Your task to perform on an android device: Go to eBay Image 0: 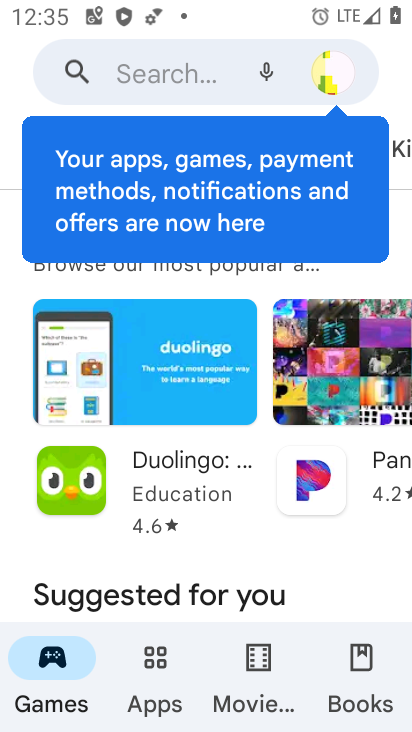
Step 0: press home button
Your task to perform on an android device: Go to eBay Image 1: 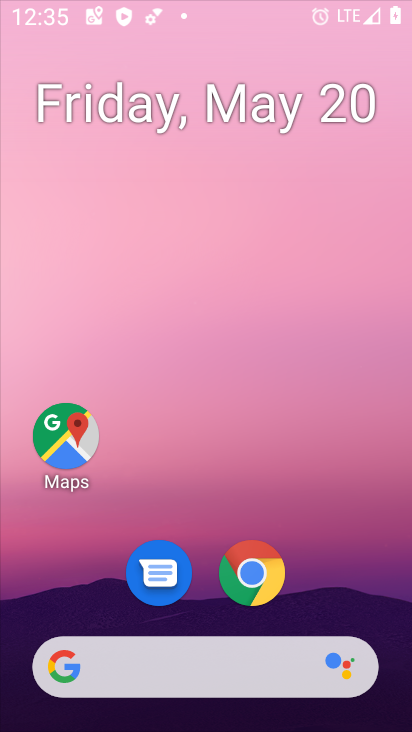
Step 1: drag from (313, 570) to (362, 116)
Your task to perform on an android device: Go to eBay Image 2: 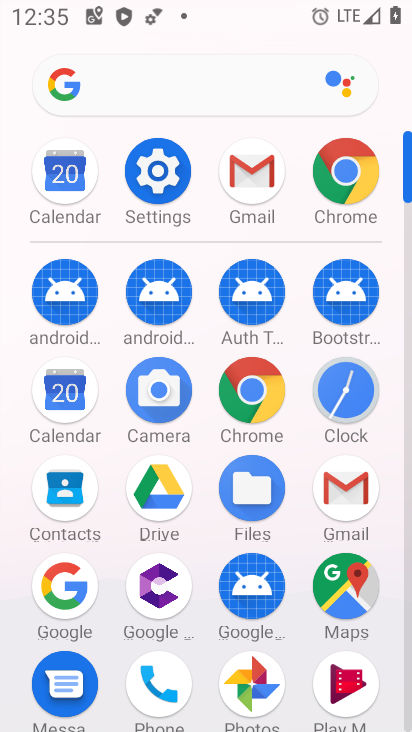
Step 2: click (62, 585)
Your task to perform on an android device: Go to eBay Image 3: 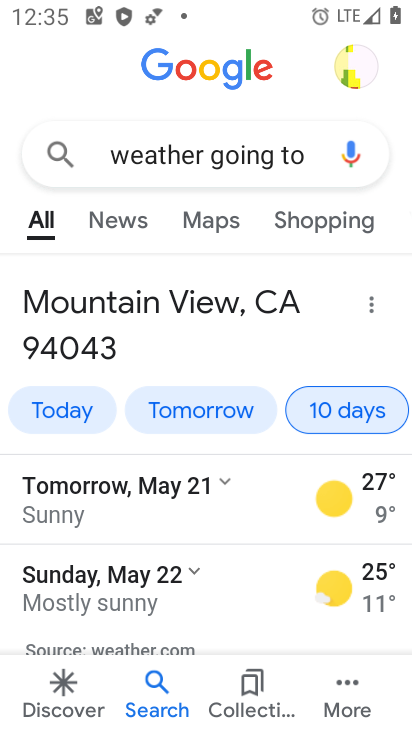
Step 3: press back button
Your task to perform on an android device: Go to eBay Image 4: 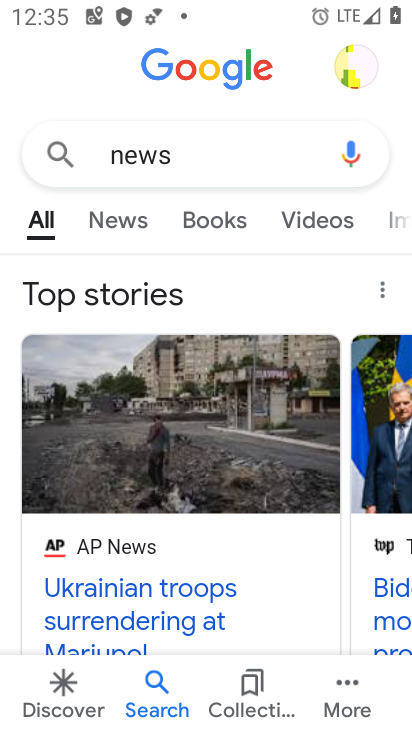
Step 4: press back button
Your task to perform on an android device: Go to eBay Image 5: 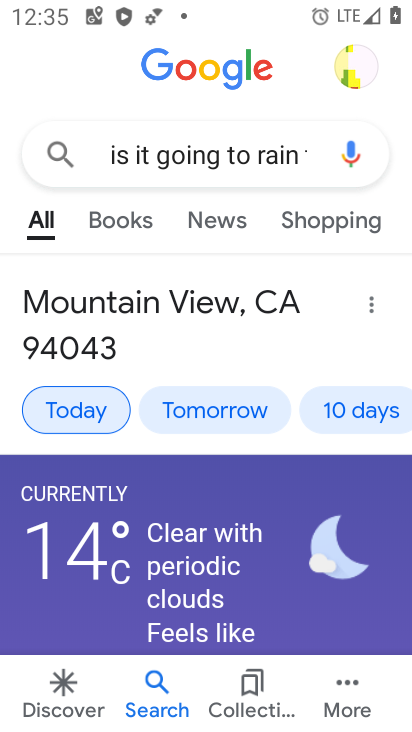
Step 5: press back button
Your task to perform on an android device: Go to eBay Image 6: 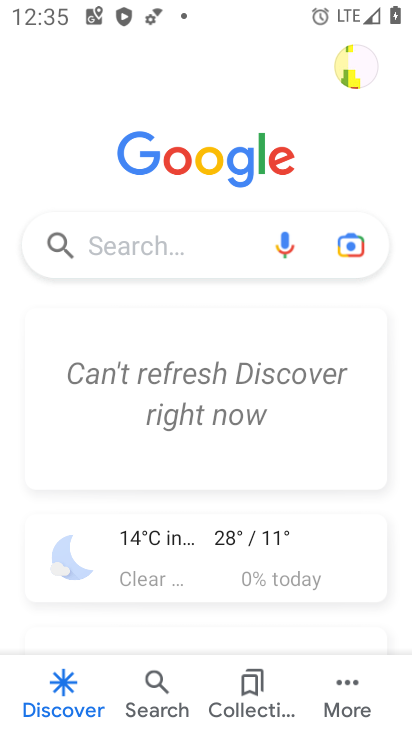
Step 6: click (156, 252)
Your task to perform on an android device: Go to eBay Image 7: 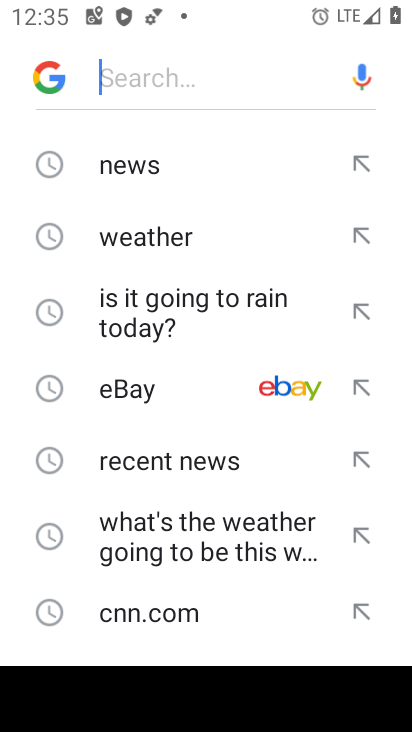
Step 7: click (159, 386)
Your task to perform on an android device: Go to eBay Image 8: 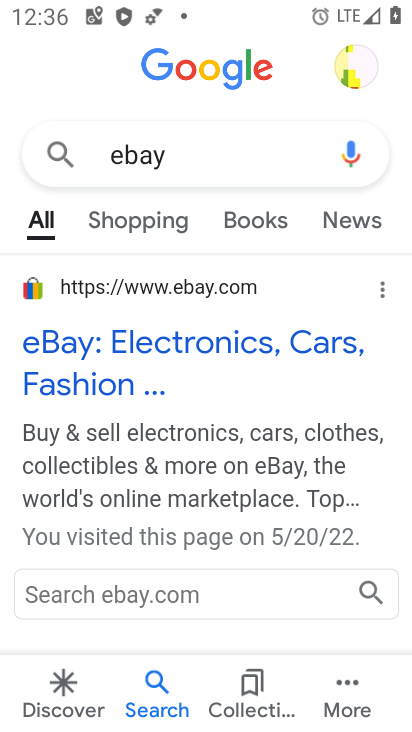
Step 8: task complete